Your task to perform on an android device: open app "Indeed Job Search" Image 0: 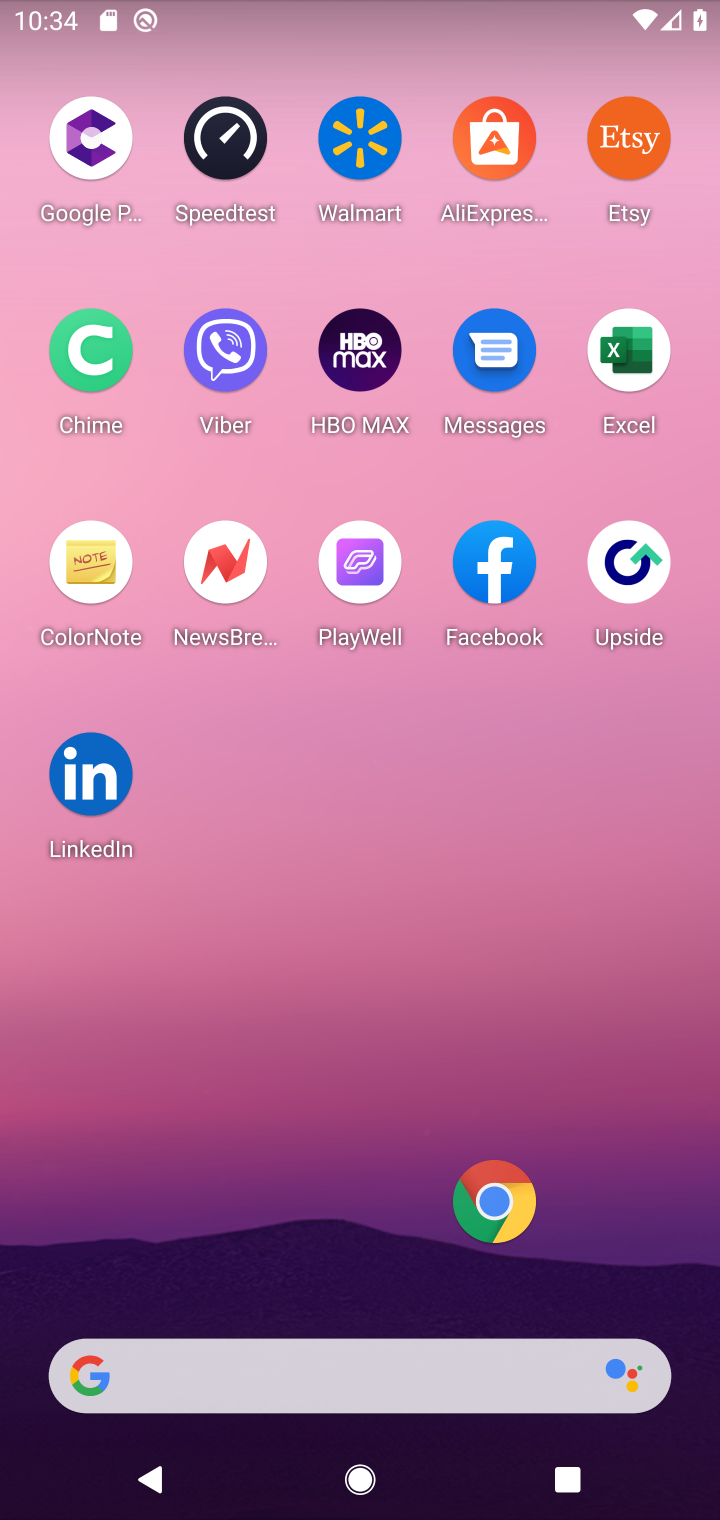
Step 0: drag from (262, 1294) to (366, 518)
Your task to perform on an android device: open app "Indeed Job Search" Image 1: 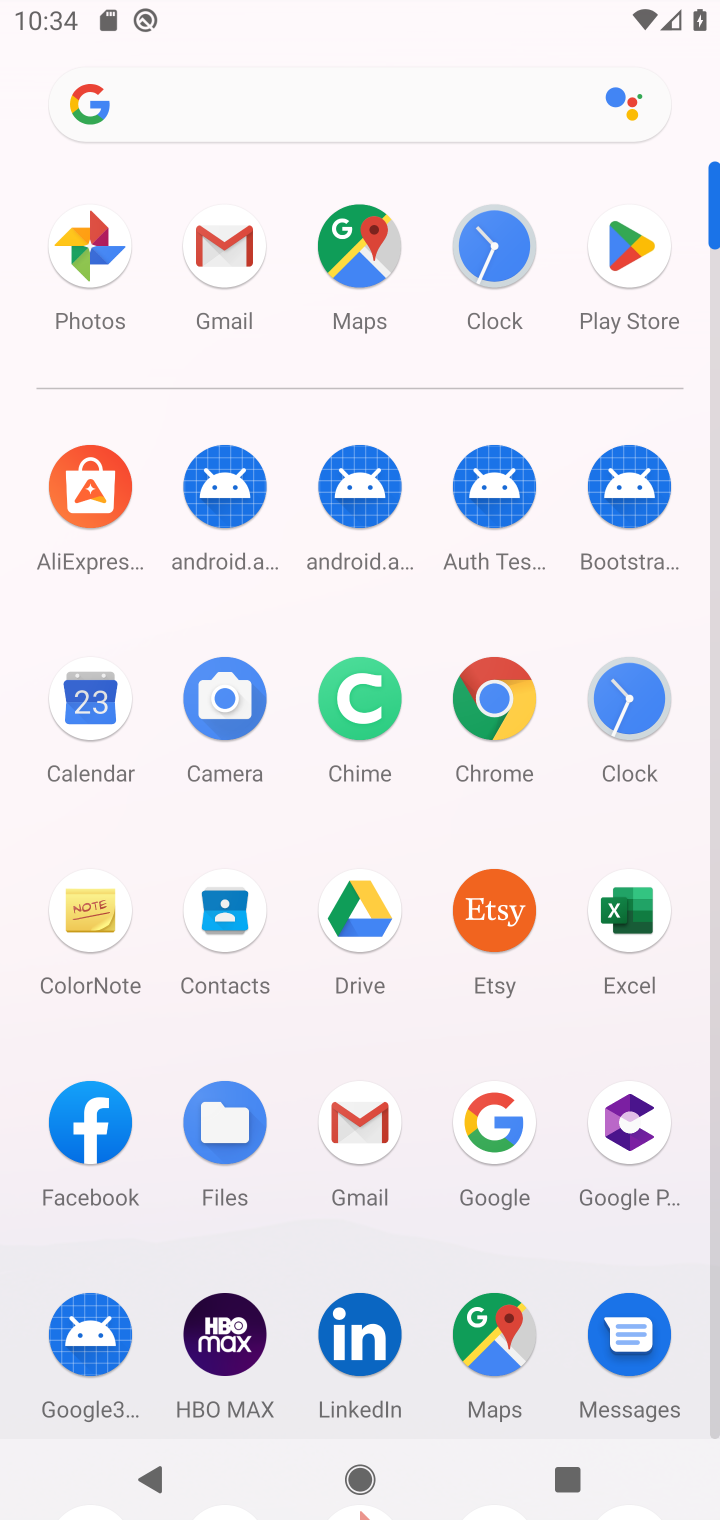
Step 1: click (644, 251)
Your task to perform on an android device: open app "Indeed Job Search" Image 2: 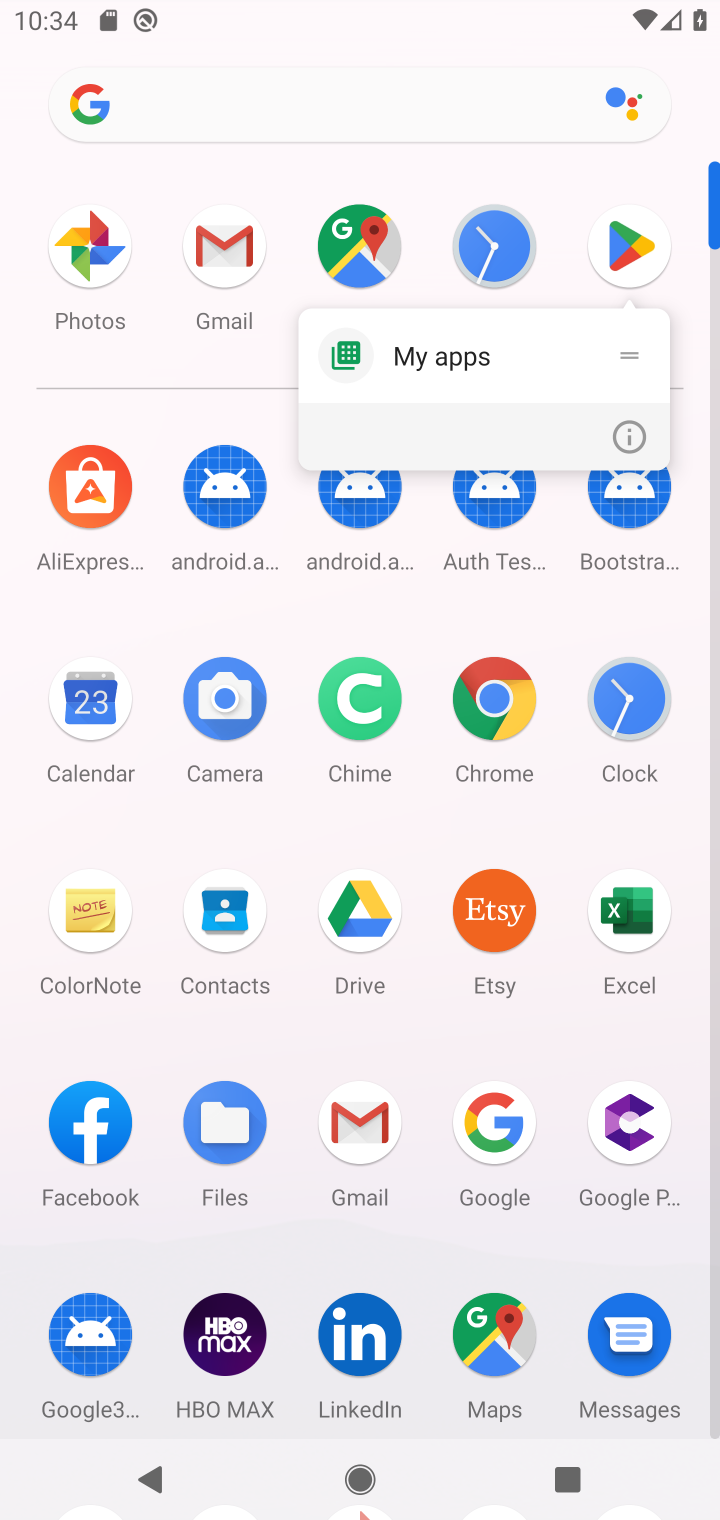
Step 2: click (608, 262)
Your task to perform on an android device: open app "Indeed Job Search" Image 3: 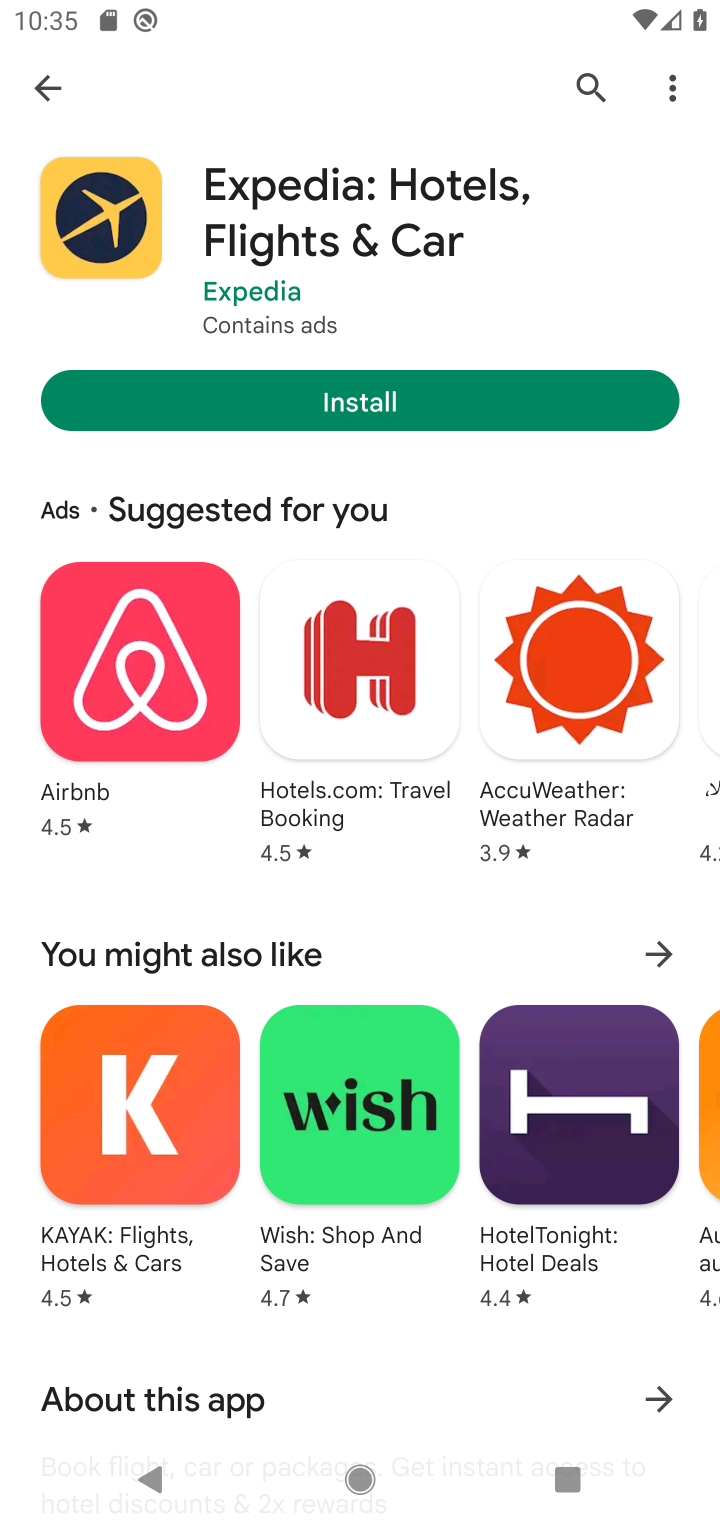
Step 3: click (45, 83)
Your task to perform on an android device: open app "Indeed Job Search" Image 4: 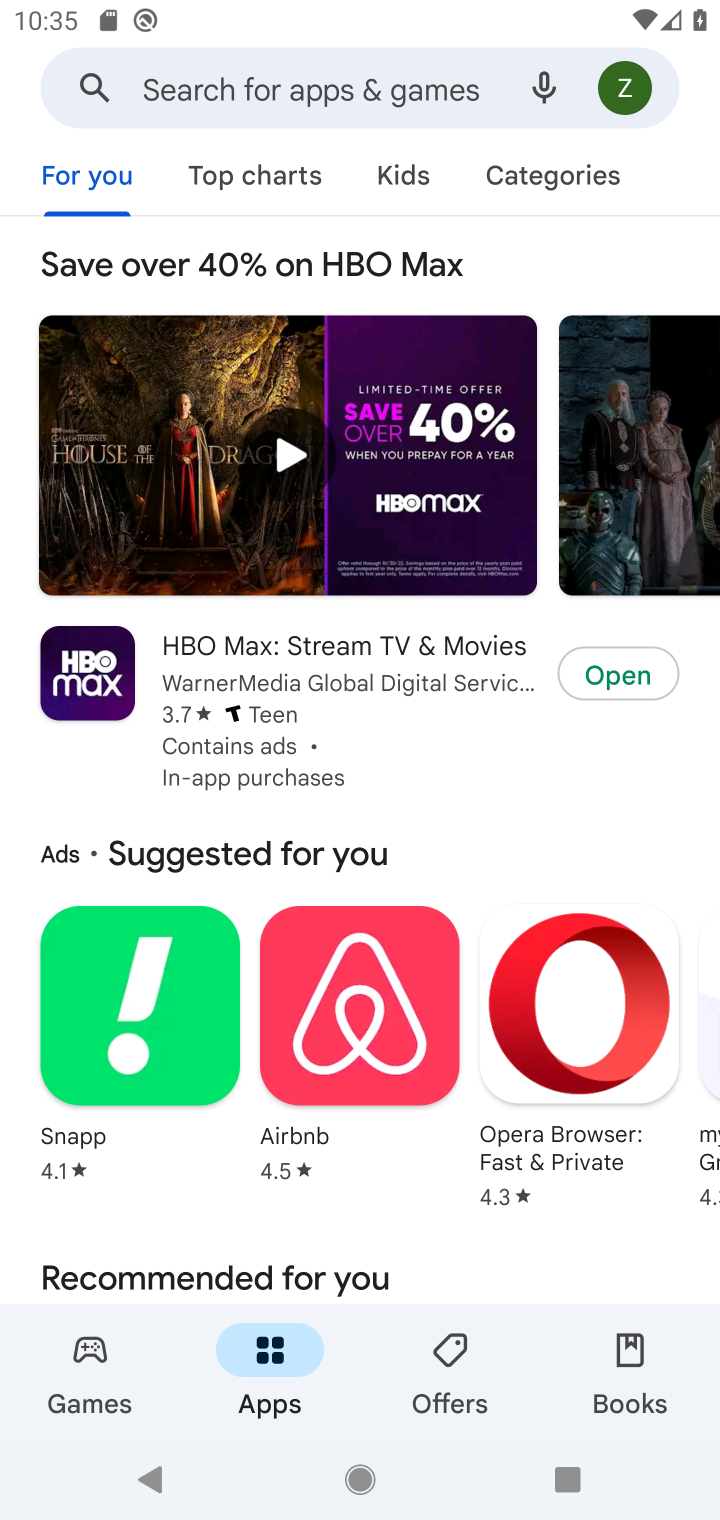
Step 4: click (306, 81)
Your task to perform on an android device: open app "Indeed Job Search" Image 5: 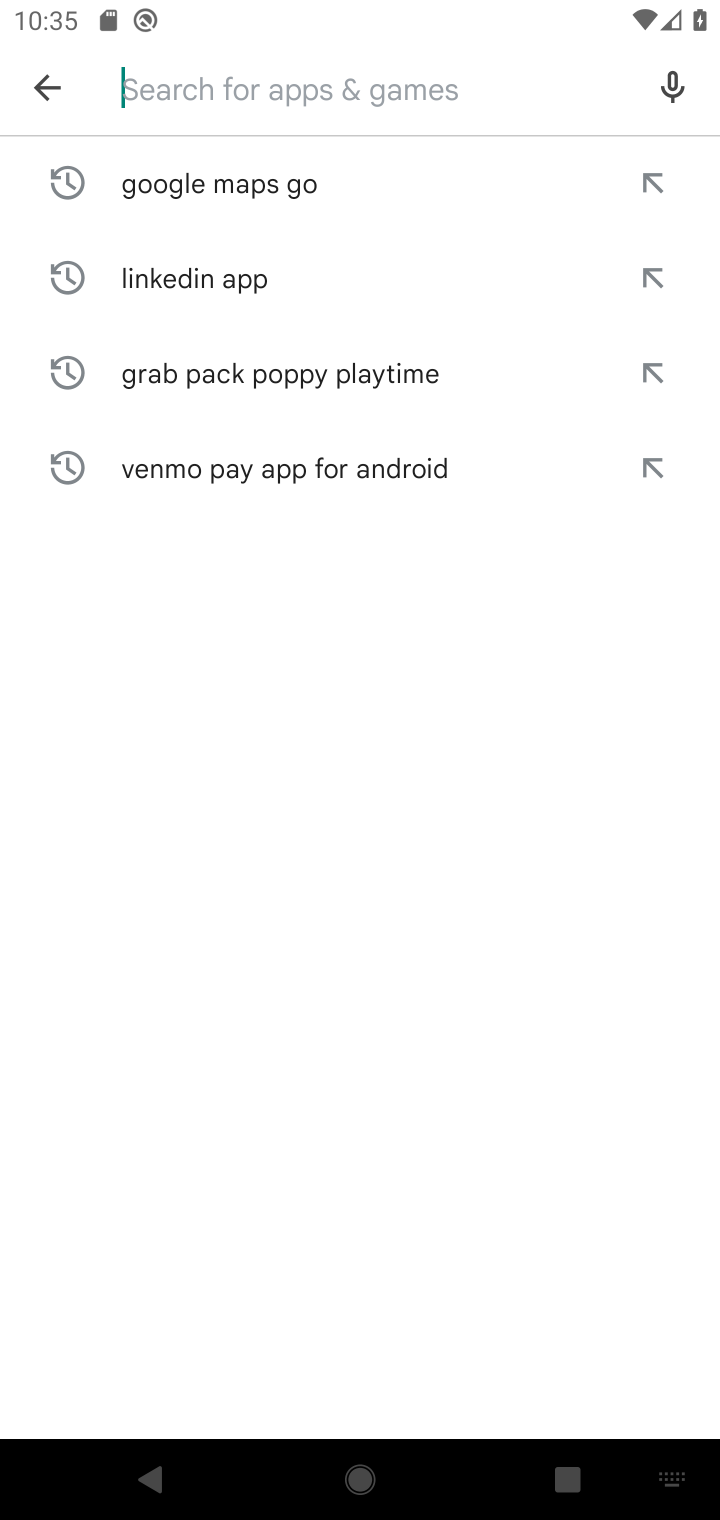
Step 5: type "Indeed Job Search "
Your task to perform on an android device: open app "Indeed Job Search" Image 6: 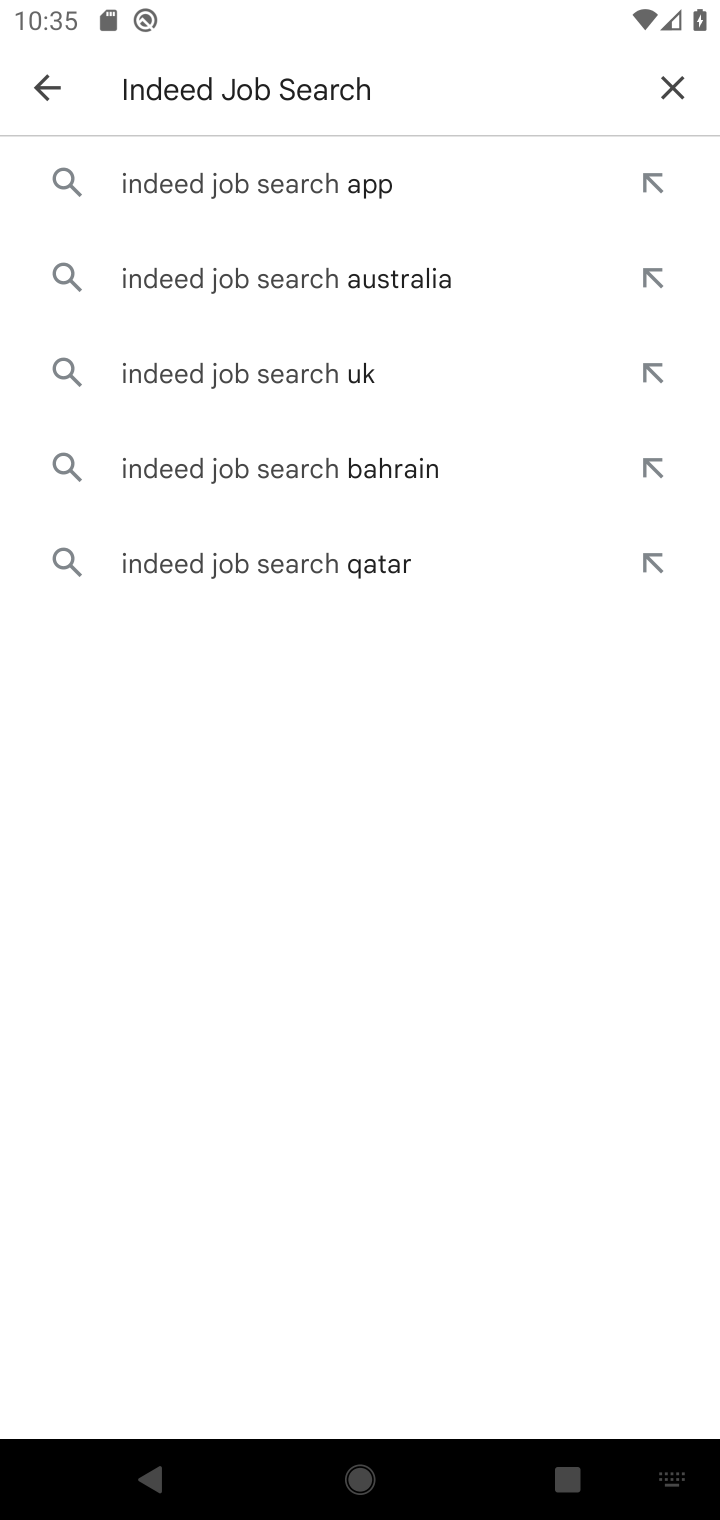
Step 6: click (177, 179)
Your task to perform on an android device: open app "Indeed Job Search" Image 7: 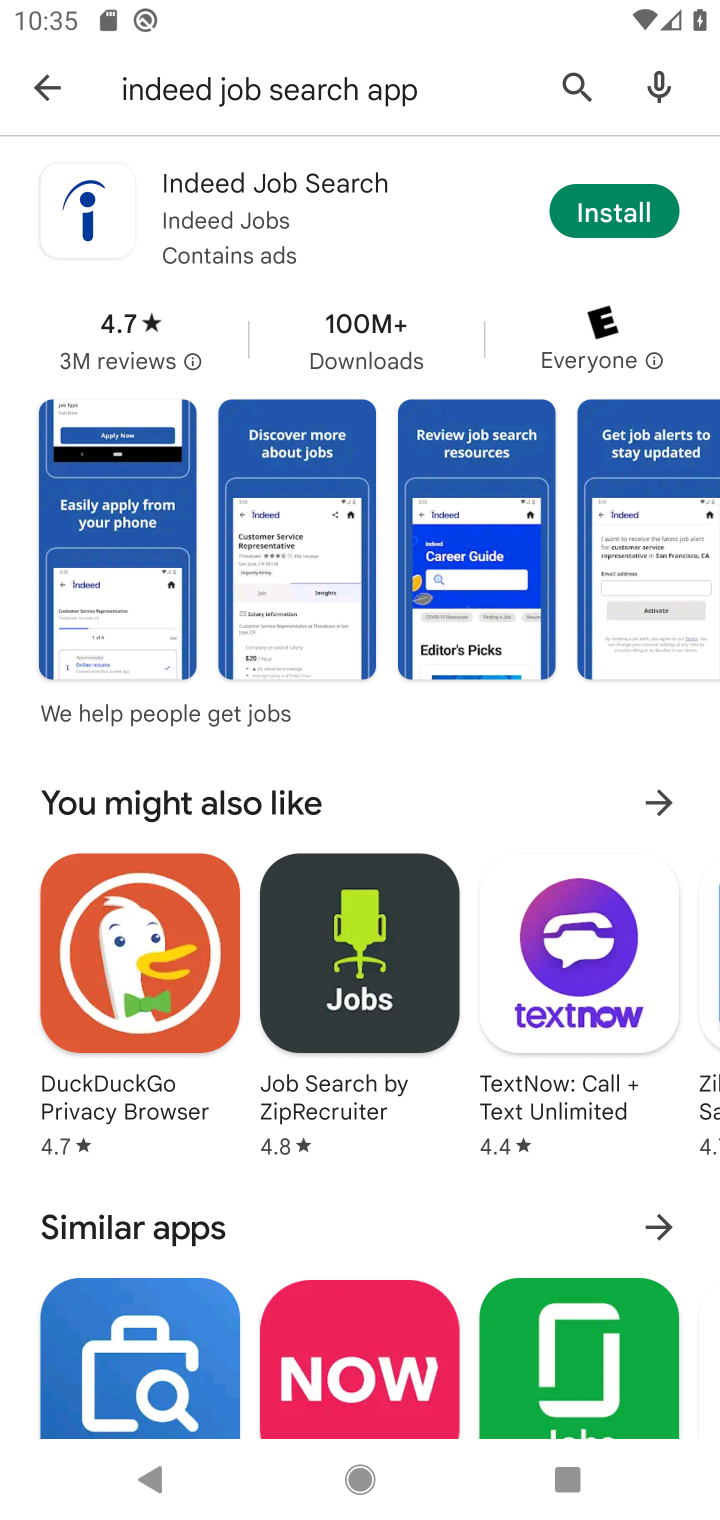
Step 7: click (604, 205)
Your task to perform on an android device: open app "Indeed Job Search" Image 8: 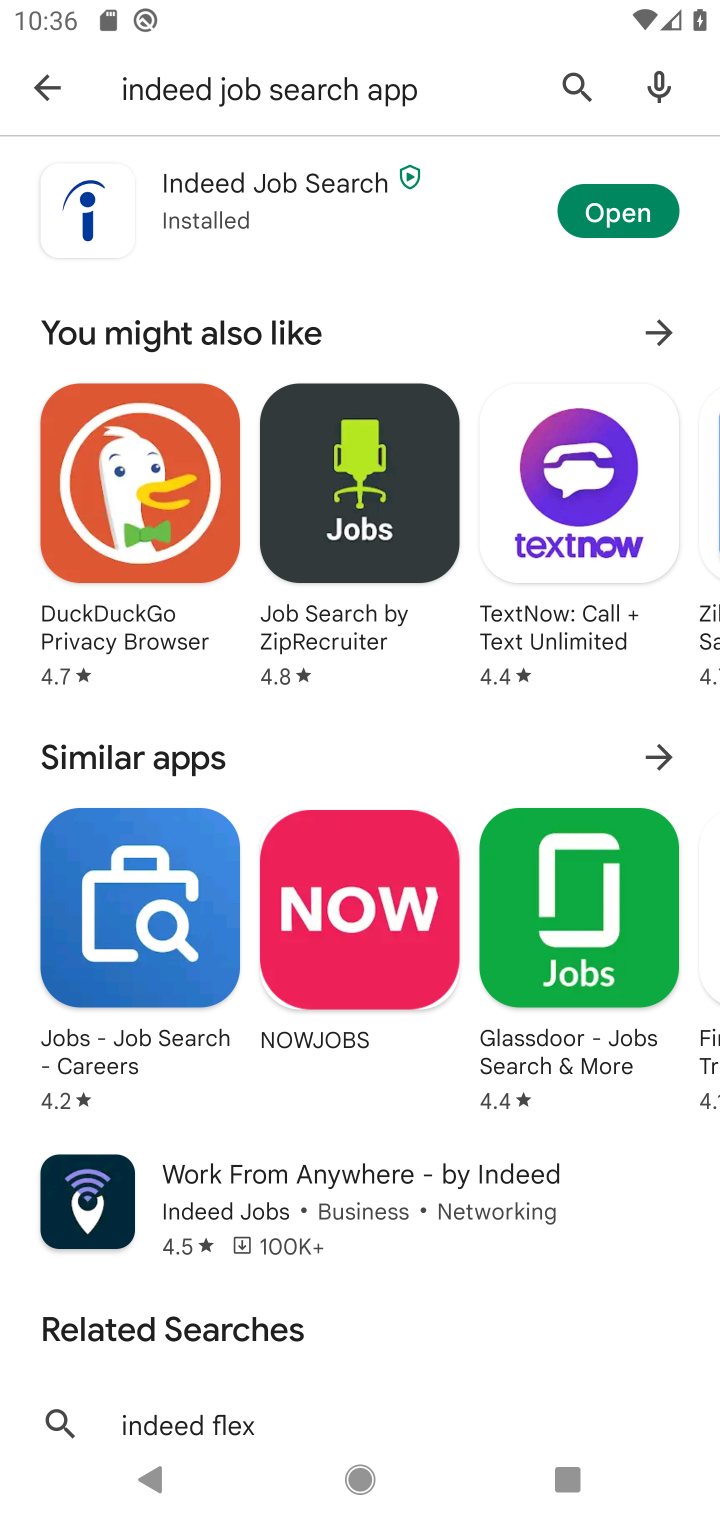
Step 8: task complete